Your task to perform on an android device: Check the news Image 0: 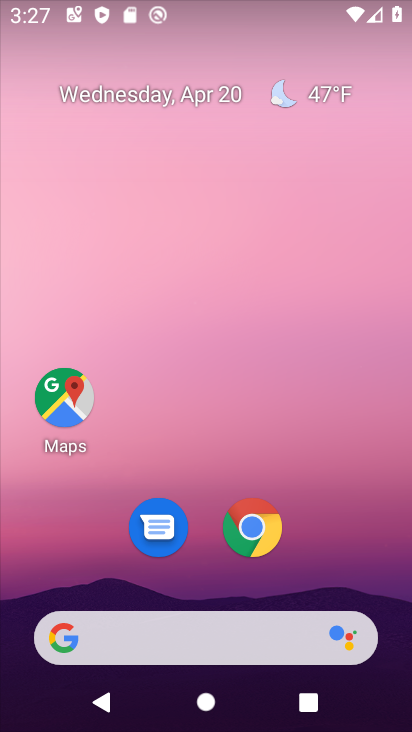
Step 0: click (261, 537)
Your task to perform on an android device: Check the news Image 1: 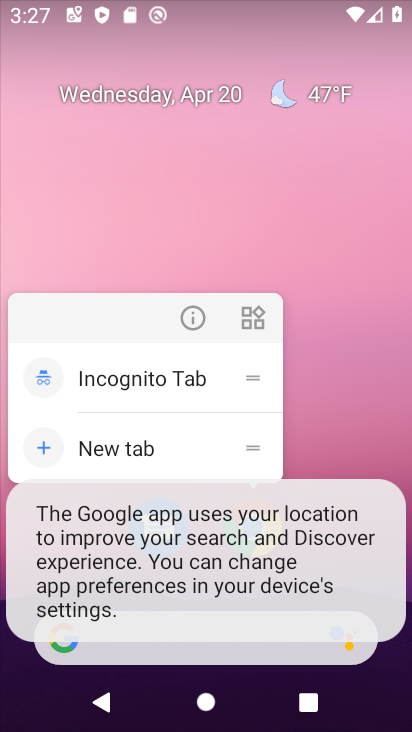
Step 1: click (309, 405)
Your task to perform on an android device: Check the news Image 2: 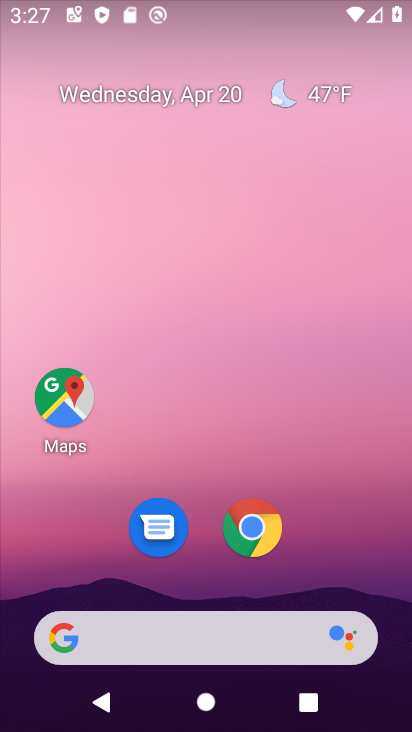
Step 2: click (267, 535)
Your task to perform on an android device: Check the news Image 3: 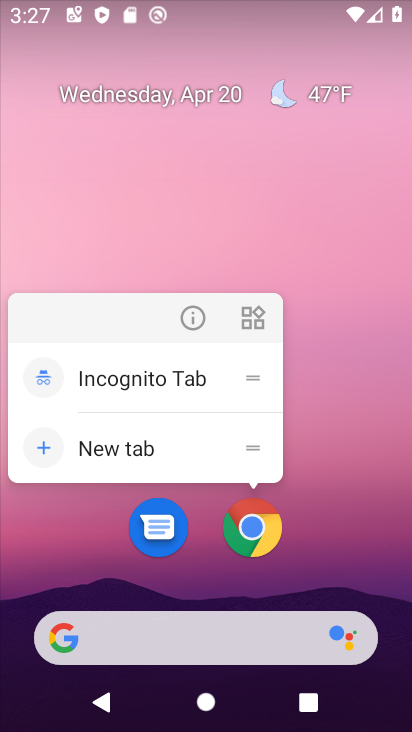
Step 3: click (257, 537)
Your task to perform on an android device: Check the news Image 4: 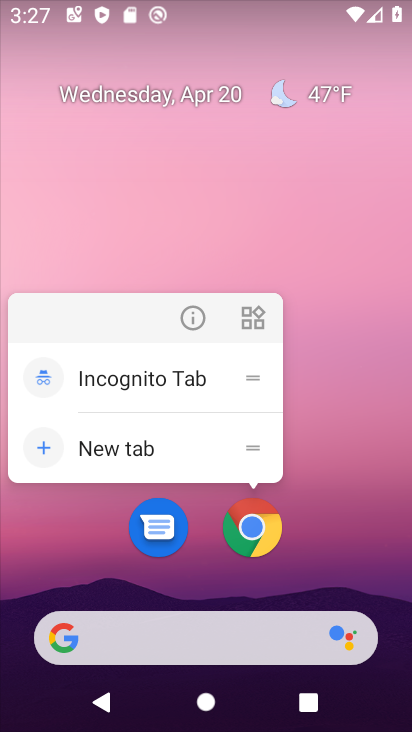
Step 4: click (247, 541)
Your task to perform on an android device: Check the news Image 5: 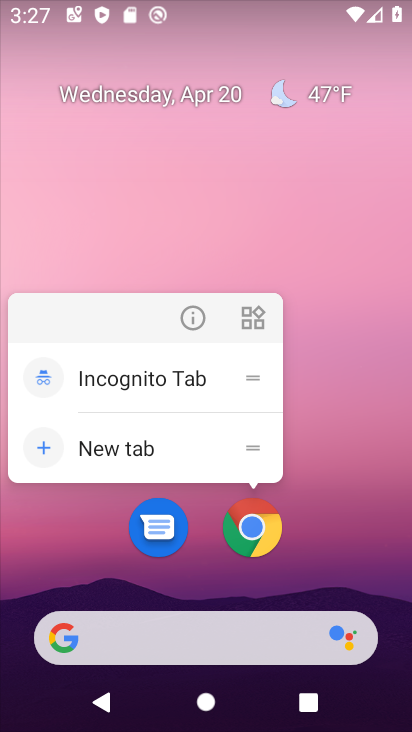
Step 5: task complete